Your task to perform on an android device: refresh tabs in the chrome app Image 0: 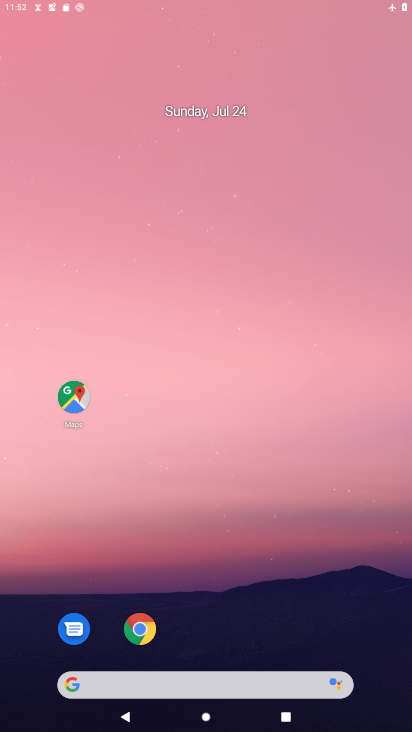
Step 0: click (81, 342)
Your task to perform on an android device: refresh tabs in the chrome app Image 1: 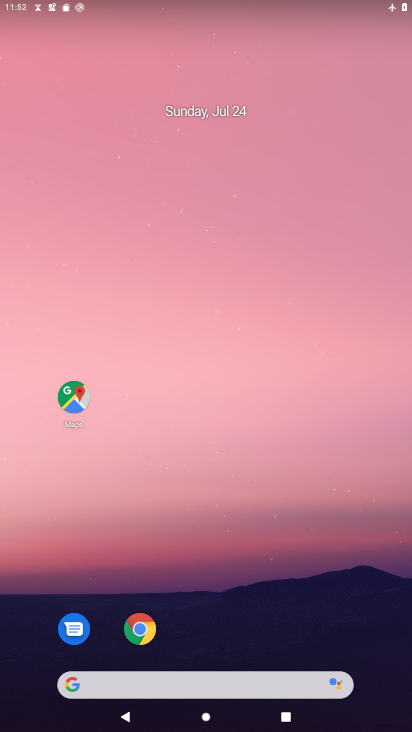
Step 1: click (141, 627)
Your task to perform on an android device: refresh tabs in the chrome app Image 2: 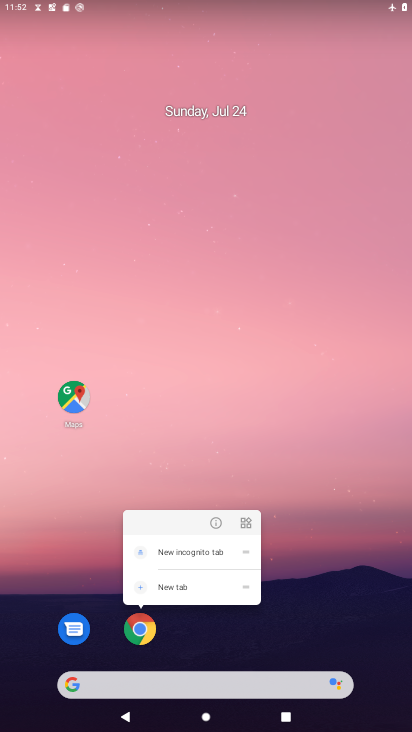
Step 2: click (143, 635)
Your task to perform on an android device: refresh tabs in the chrome app Image 3: 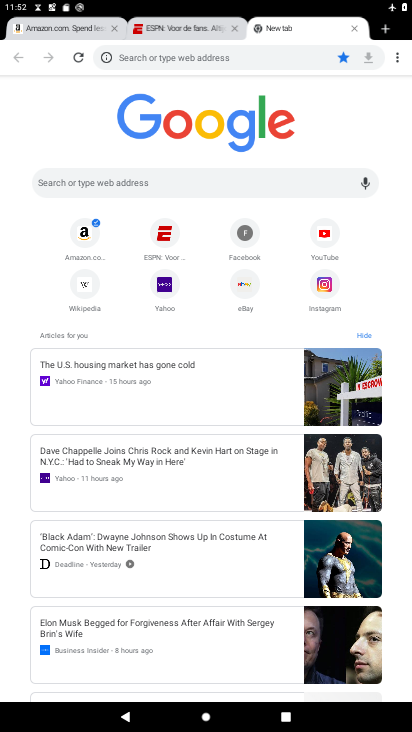
Step 3: click (79, 59)
Your task to perform on an android device: refresh tabs in the chrome app Image 4: 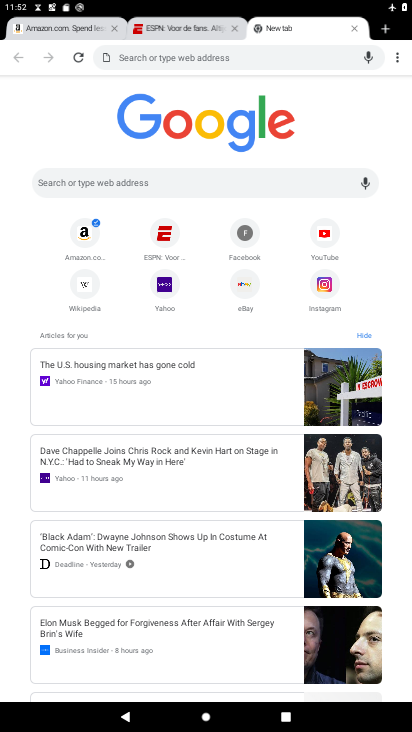
Step 4: task complete